Your task to perform on an android device: change your default location settings in chrome Image 0: 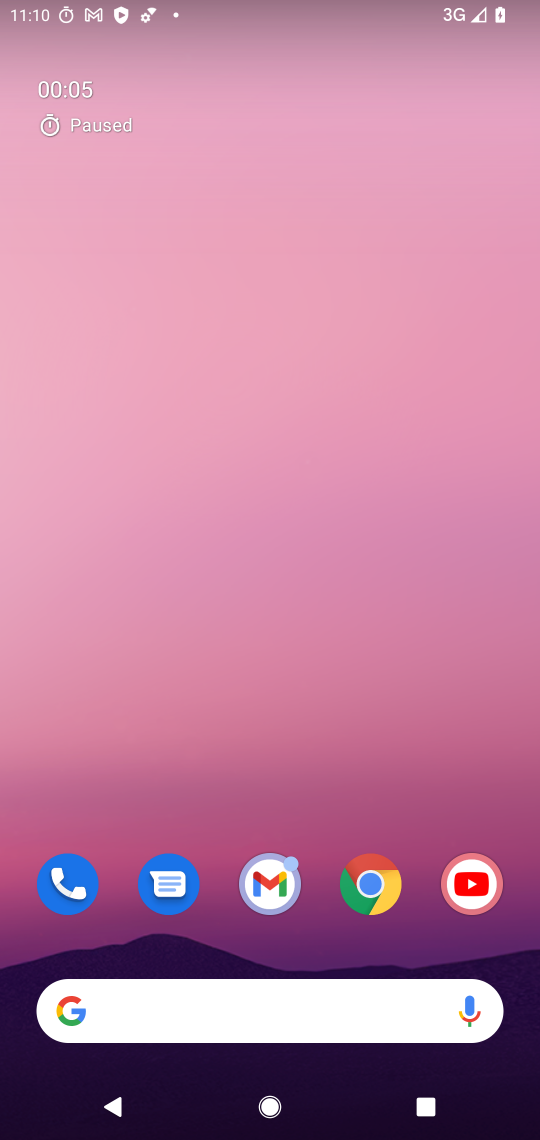
Step 0: click (369, 900)
Your task to perform on an android device: change your default location settings in chrome Image 1: 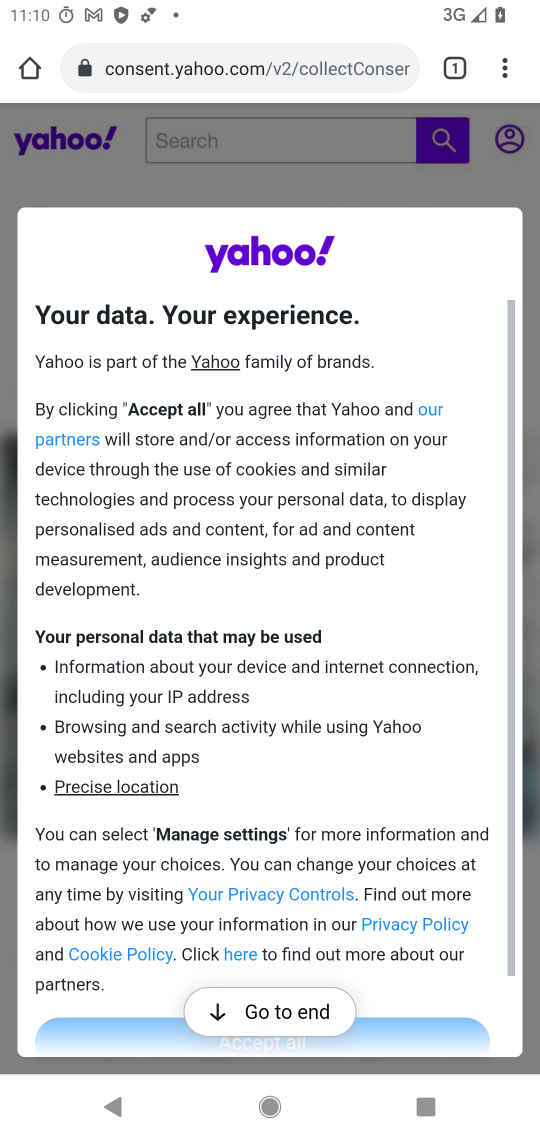
Step 1: click (505, 78)
Your task to perform on an android device: change your default location settings in chrome Image 2: 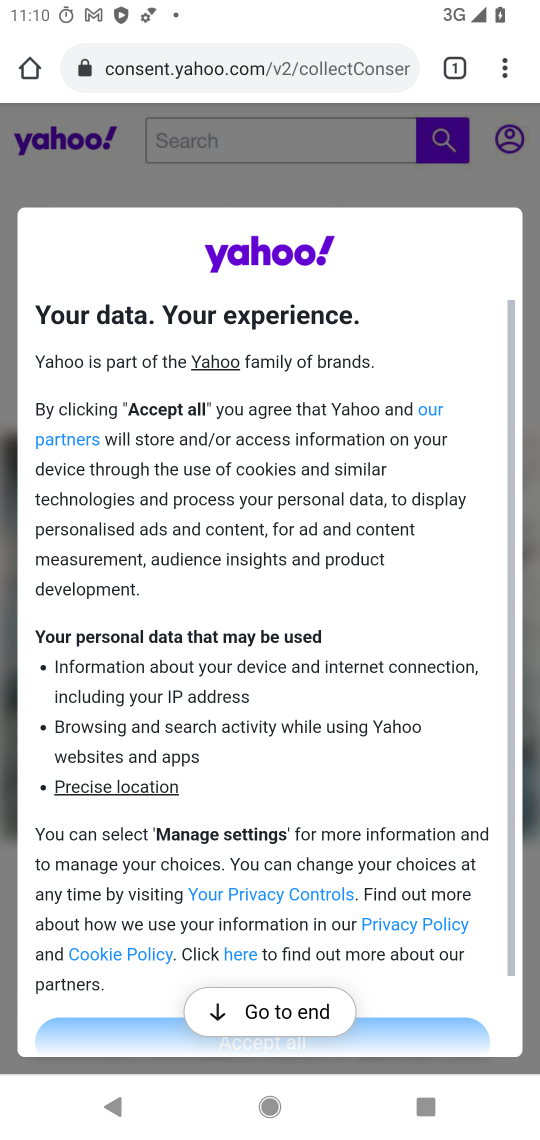
Step 2: click (507, 73)
Your task to perform on an android device: change your default location settings in chrome Image 3: 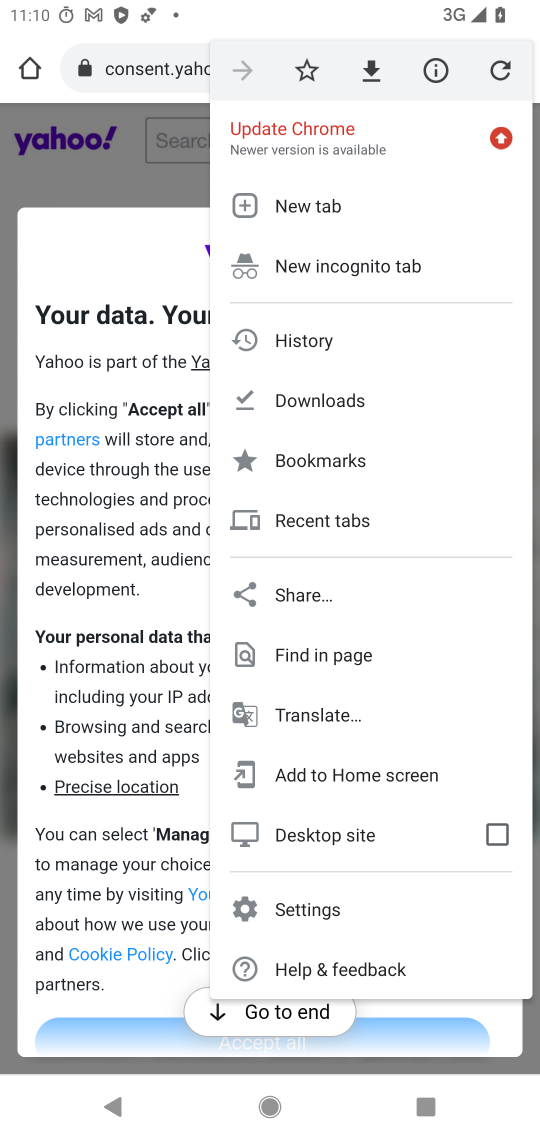
Step 3: click (279, 910)
Your task to perform on an android device: change your default location settings in chrome Image 4: 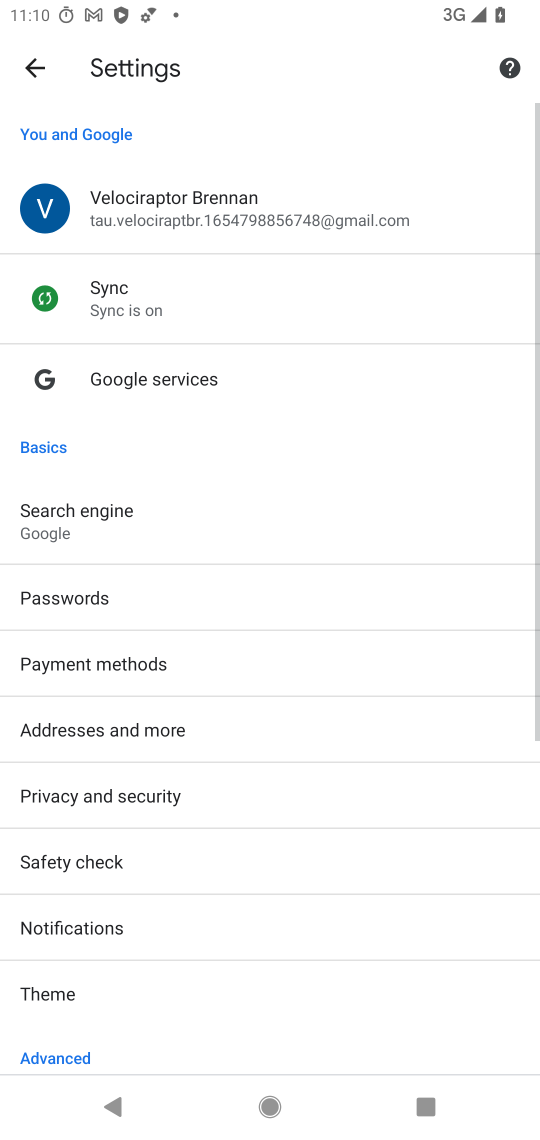
Step 4: click (149, 987)
Your task to perform on an android device: change your default location settings in chrome Image 5: 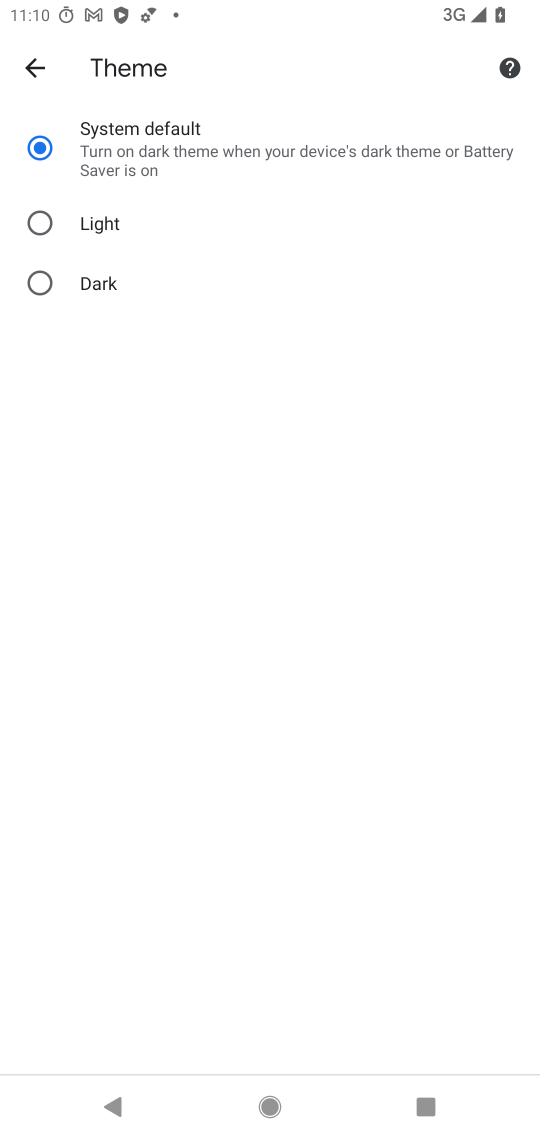
Step 5: click (30, 70)
Your task to perform on an android device: change your default location settings in chrome Image 6: 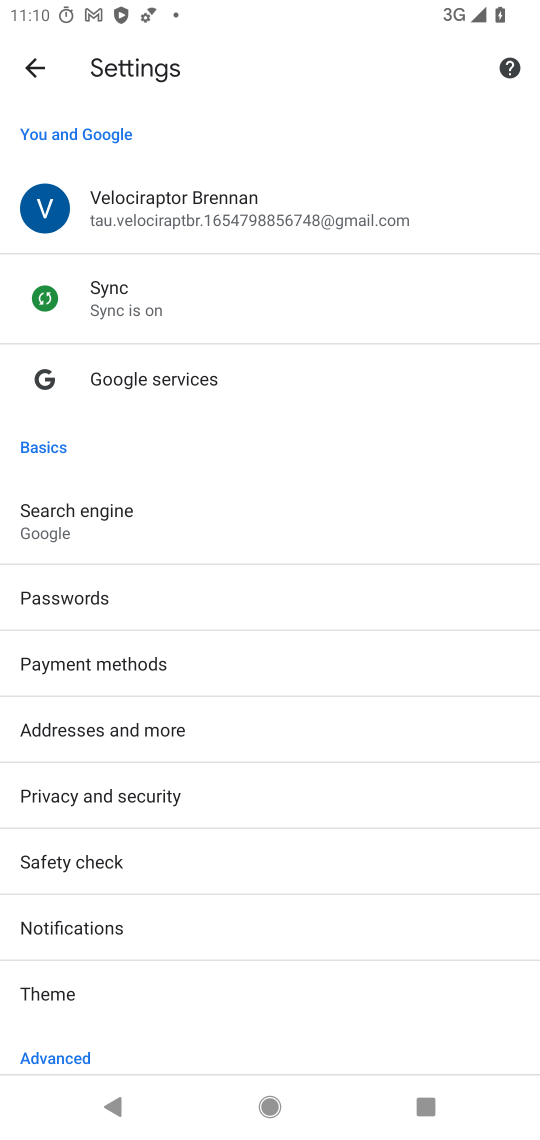
Step 6: drag from (122, 962) to (153, 368)
Your task to perform on an android device: change your default location settings in chrome Image 7: 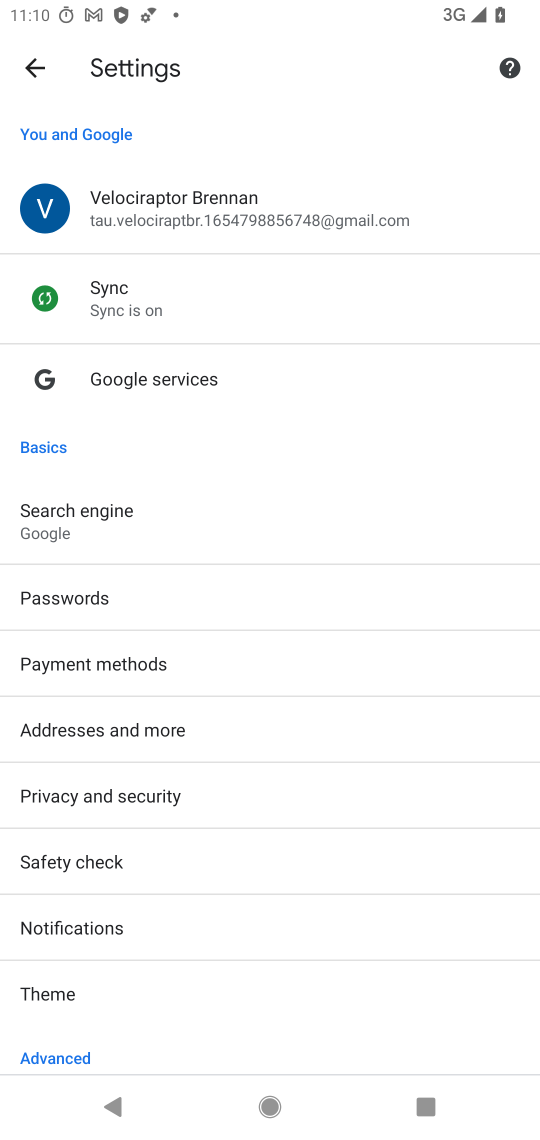
Step 7: drag from (158, 923) to (169, 177)
Your task to perform on an android device: change your default location settings in chrome Image 8: 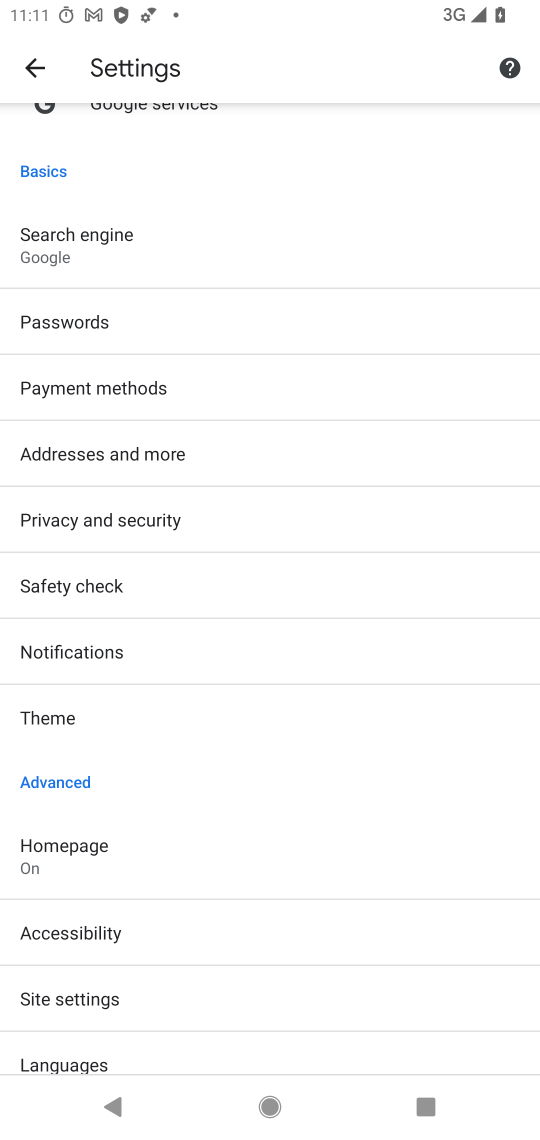
Step 8: click (101, 993)
Your task to perform on an android device: change your default location settings in chrome Image 9: 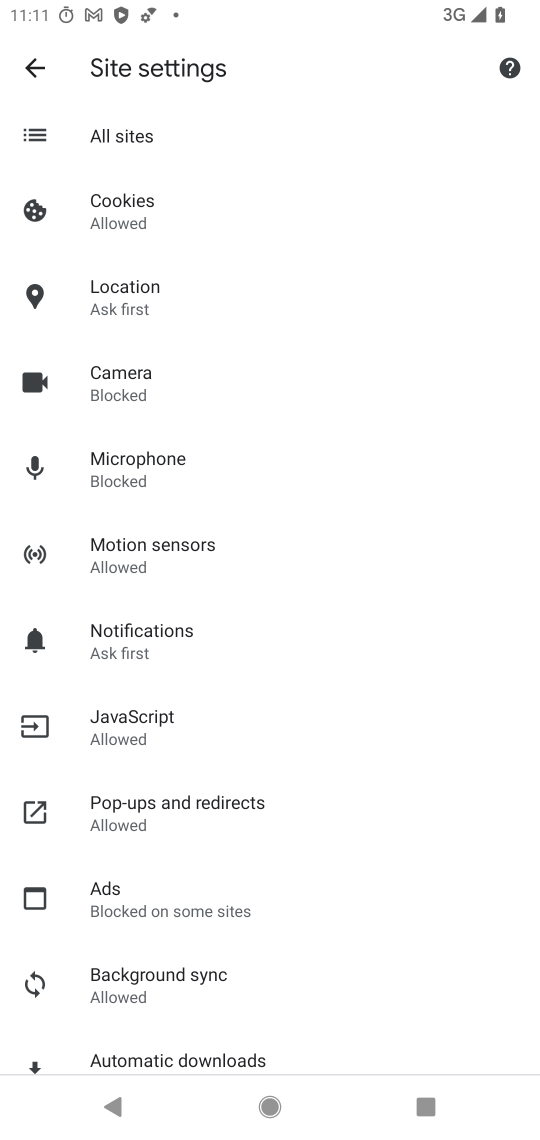
Step 9: click (110, 301)
Your task to perform on an android device: change your default location settings in chrome Image 10: 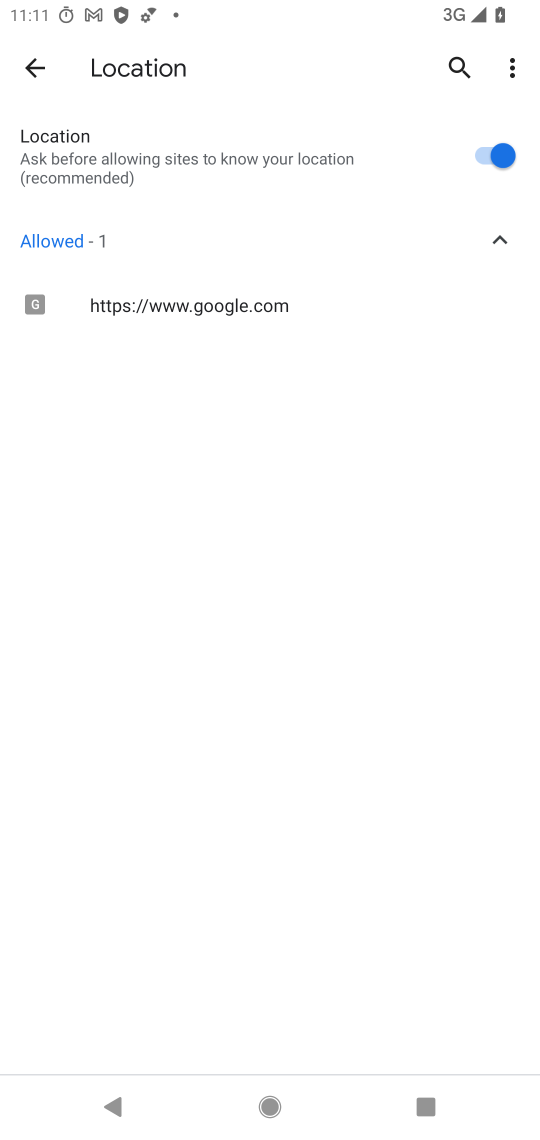
Step 10: click (470, 164)
Your task to perform on an android device: change your default location settings in chrome Image 11: 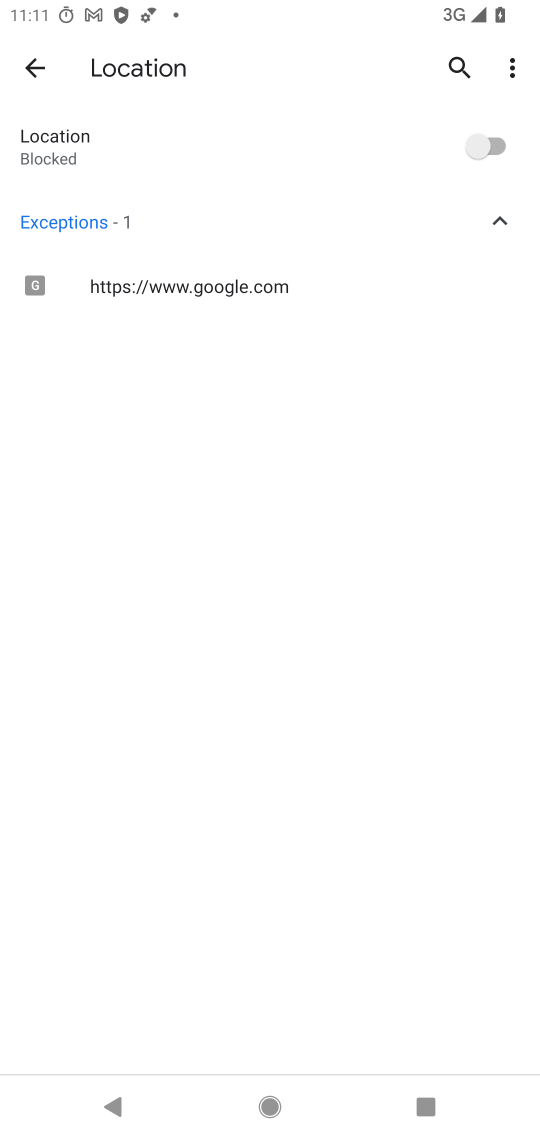
Step 11: task complete